Your task to perform on an android device: Is it going to rain today? Image 0: 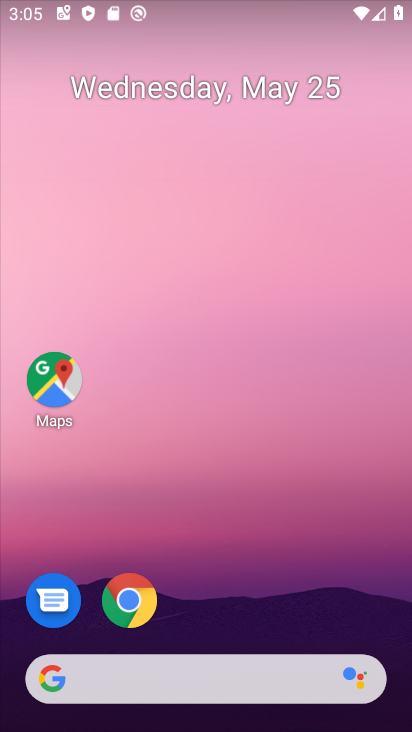
Step 0: press home button
Your task to perform on an android device: Is it going to rain today? Image 1: 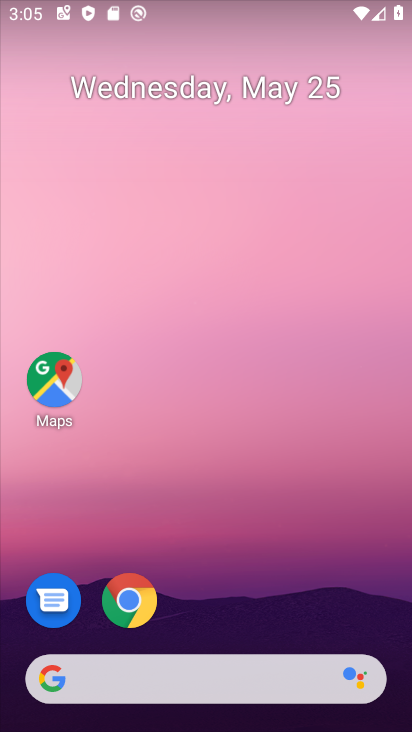
Step 1: click (134, 664)
Your task to perform on an android device: Is it going to rain today? Image 2: 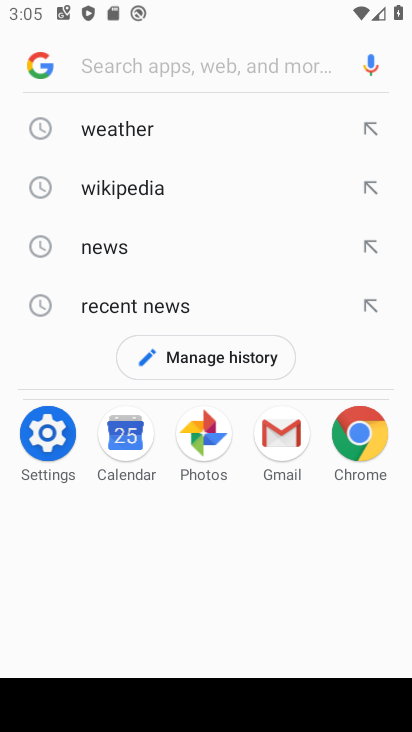
Step 2: click (151, 134)
Your task to perform on an android device: Is it going to rain today? Image 3: 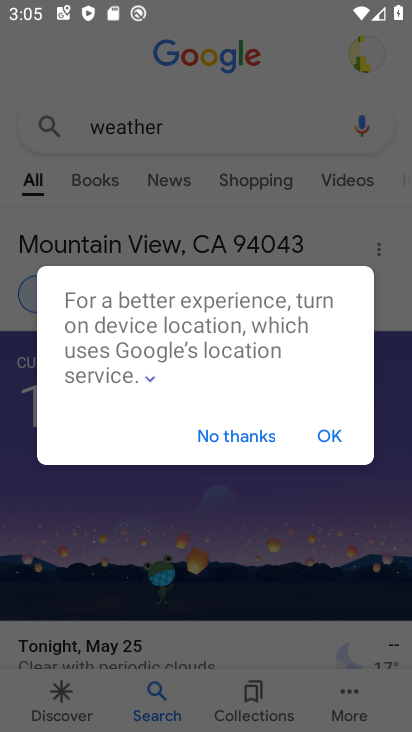
Step 3: click (320, 436)
Your task to perform on an android device: Is it going to rain today? Image 4: 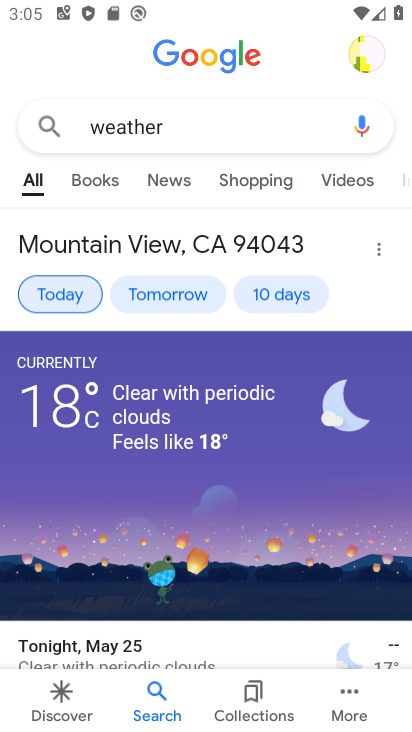
Step 4: task complete